Your task to perform on an android device: Open Youtube and go to "Your channel" Image 0: 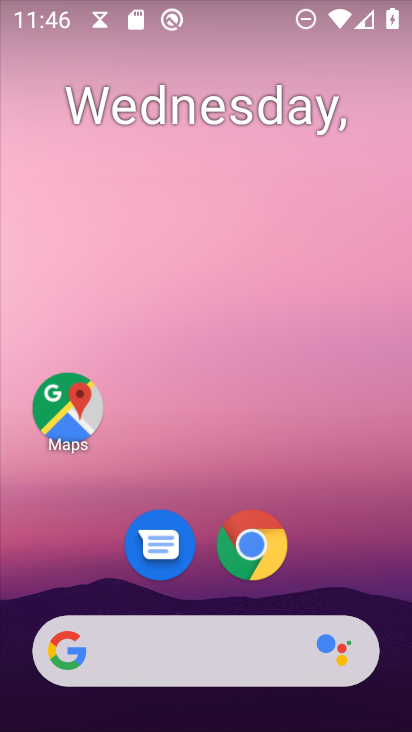
Step 0: drag from (253, 674) to (354, 86)
Your task to perform on an android device: Open Youtube and go to "Your channel" Image 1: 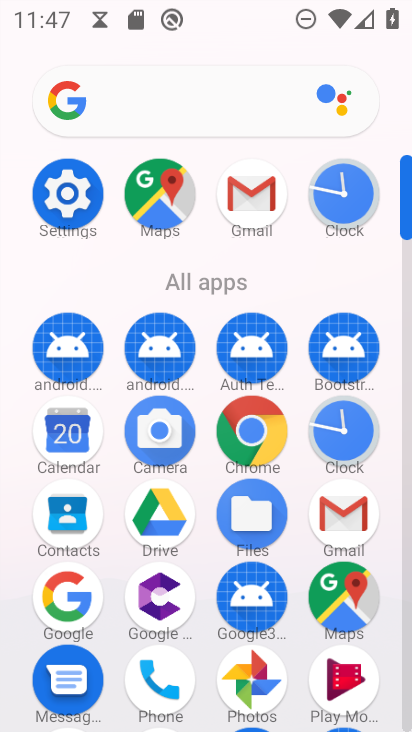
Step 1: drag from (211, 478) to (235, 229)
Your task to perform on an android device: Open Youtube and go to "Your channel" Image 2: 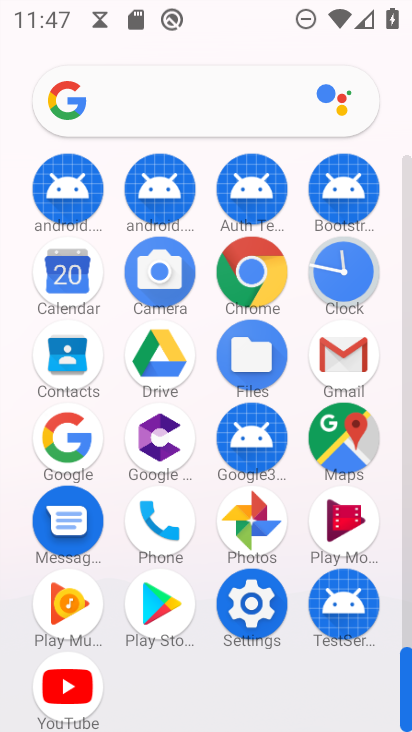
Step 2: click (84, 665)
Your task to perform on an android device: Open Youtube and go to "Your channel" Image 3: 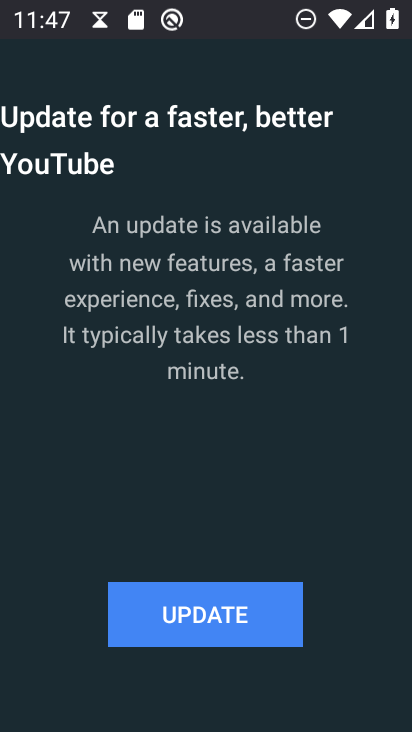
Step 3: click (194, 604)
Your task to perform on an android device: Open Youtube and go to "Your channel" Image 4: 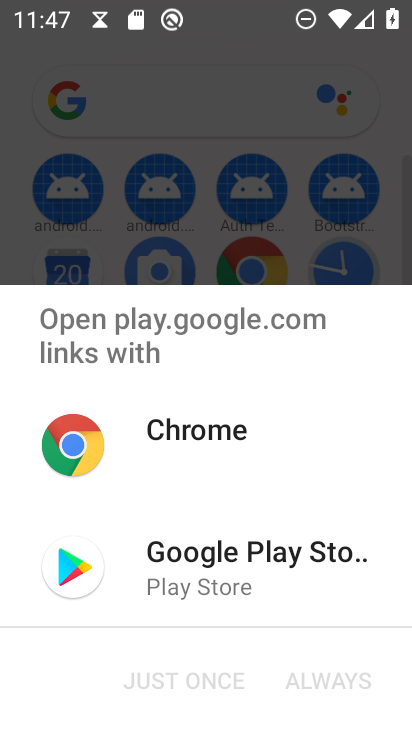
Step 4: click (209, 594)
Your task to perform on an android device: Open Youtube and go to "Your channel" Image 5: 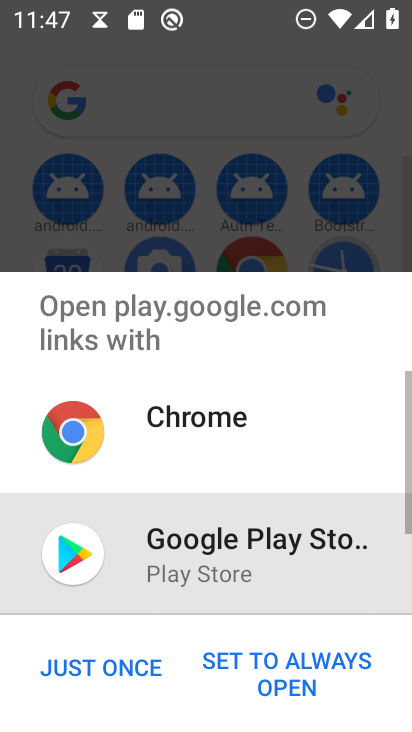
Step 5: click (135, 665)
Your task to perform on an android device: Open Youtube and go to "Your channel" Image 6: 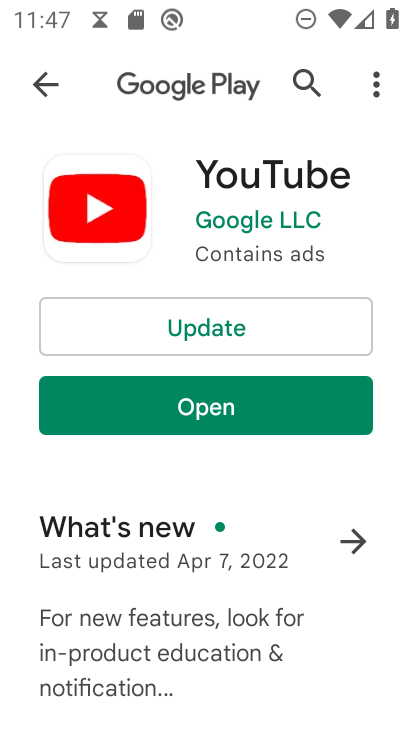
Step 6: click (193, 338)
Your task to perform on an android device: Open Youtube and go to "Your channel" Image 7: 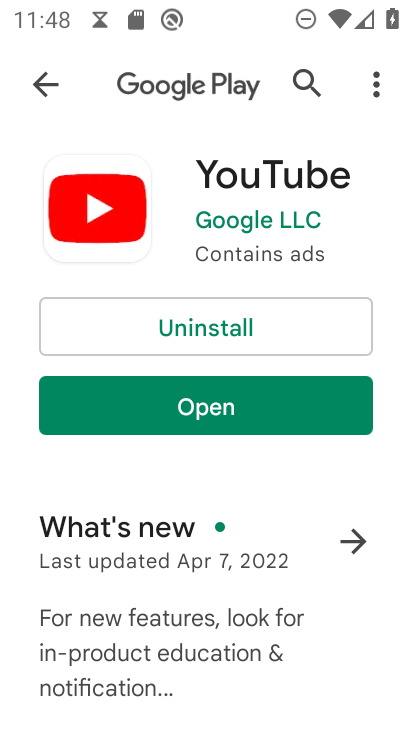
Step 7: click (193, 403)
Your task to perform on an android device: Open Youtube and go to "Your channel" Image 8: 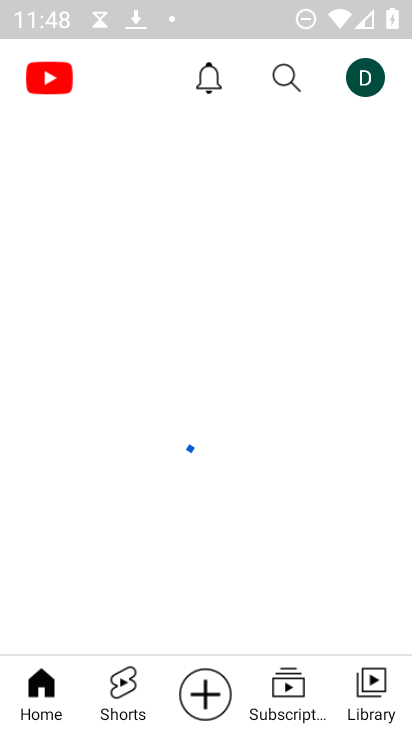
Step 8: click (369, 87)
Your task to perform on an android device: Open Youtube and go to "Your channel" Image 9: 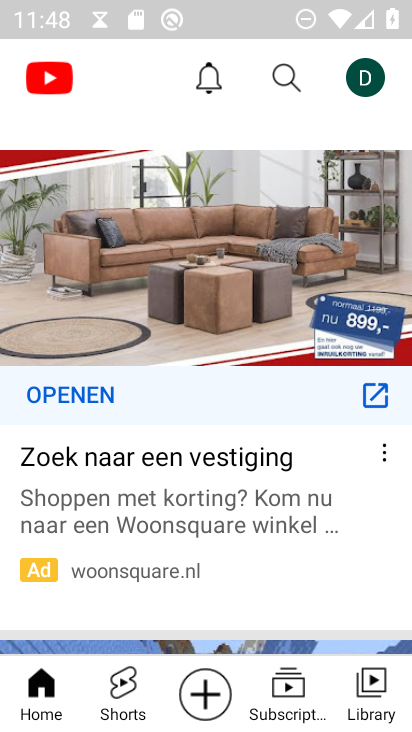
Step 9: click (361, 72)
Your task to perform on an android device: Open Youtube and go to "Your channel" Image 10: 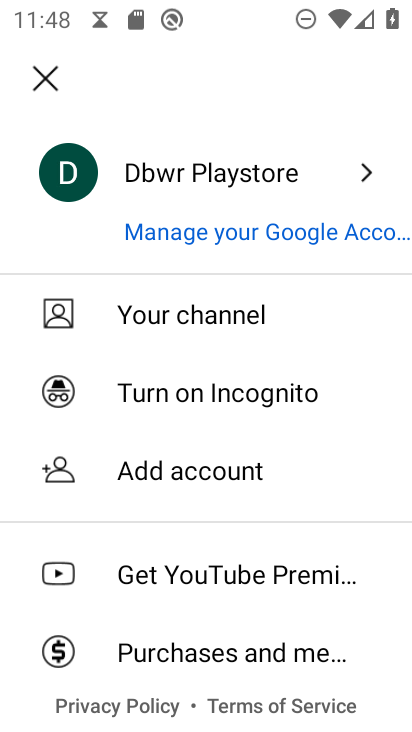
Step 10: click (130, 308)
Your task to perform on an android device: Open Youtube and go to "Your channel" Image 11: 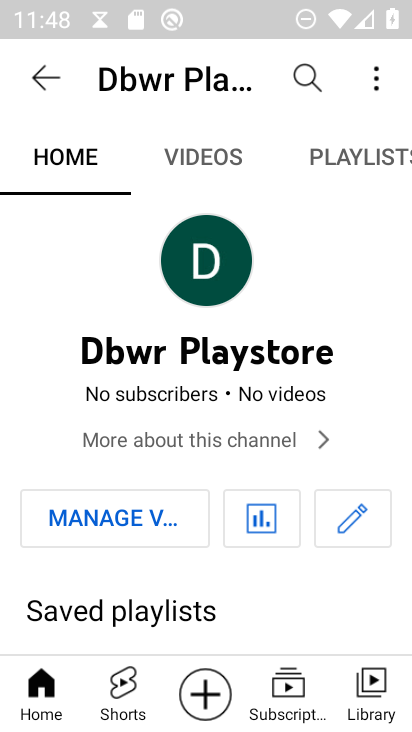
Step 11: task complete